Your task to perform on an android device: turn off notifications settings in the gmail app Image 0: 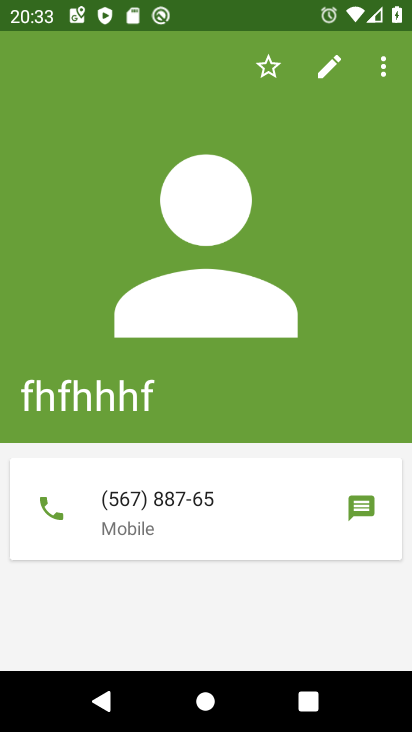
Step 0: press home button
Your task to perform on an android device: turn off notifications settings in the gmail app Image 1: 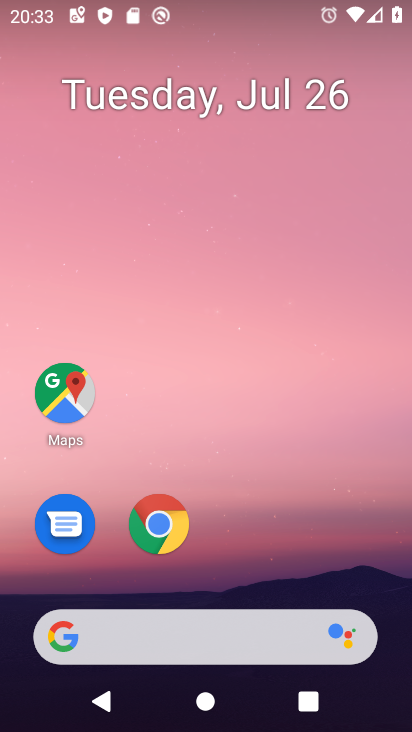
Step 1: drag from (256, 514) to (292, 1)
Your task to perform on an android device: turn off notifications settings in the gmail app Image 2: 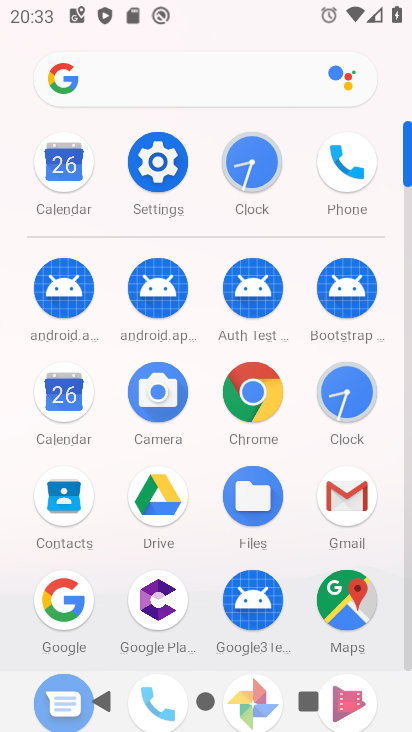
Step 2: click (353, 489)
Your task to perform on an android device: turn off notifications settings in the gmail app Image 3: 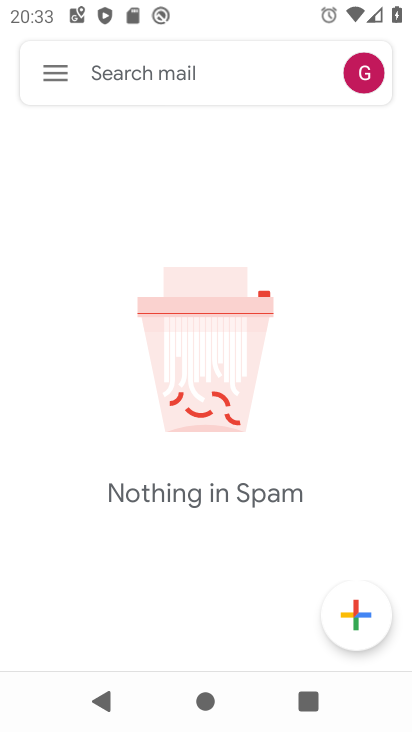
Step 3: click (50, 73)
Your task to perform on an android device: turn off notifications settings in the gmail app Image 4: 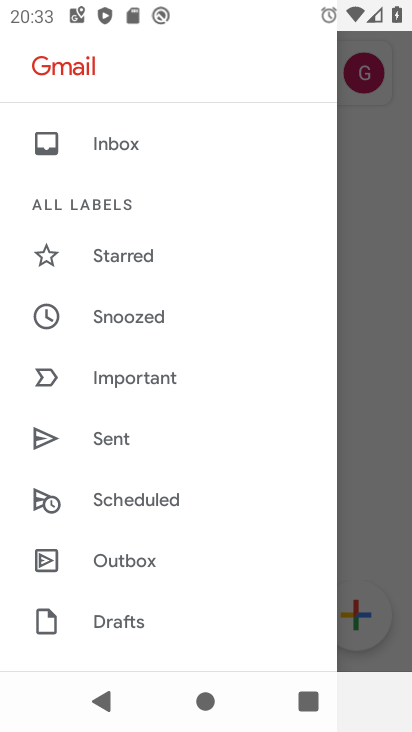
Step 4: drag from (165, 558) to (200, 22)
Your task to perform on an android device: turn off notifications settings in the gmail app Image 5: 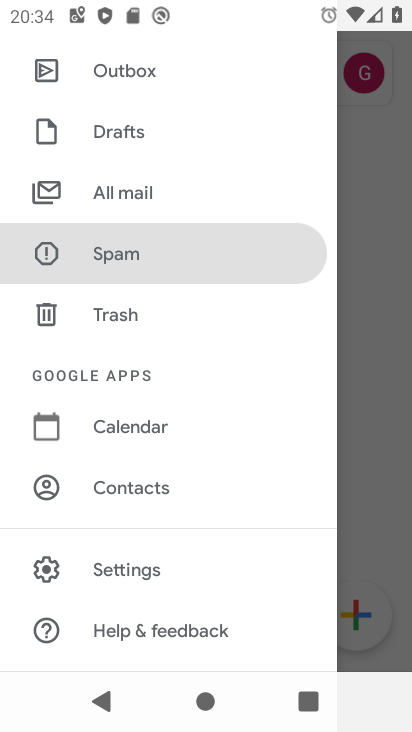
Step 5: click (134, 563)
Your task to perform on an android device: turn off notifications settings in the gmail app Image 6: 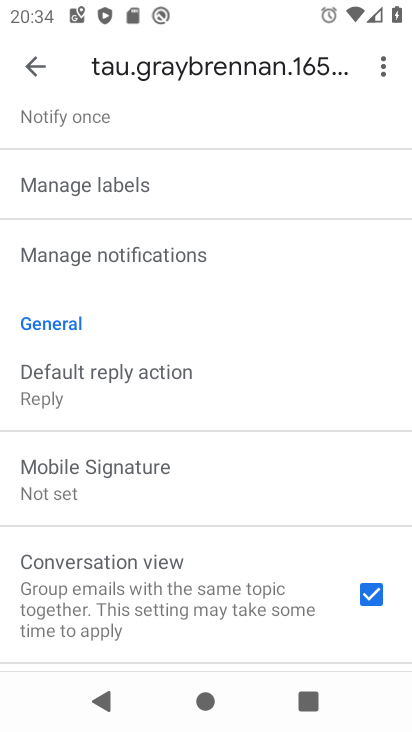
Step 6: click (134, 259)
Your task to perform on an android device: turn off notifications settings in the gmail app Image 7: 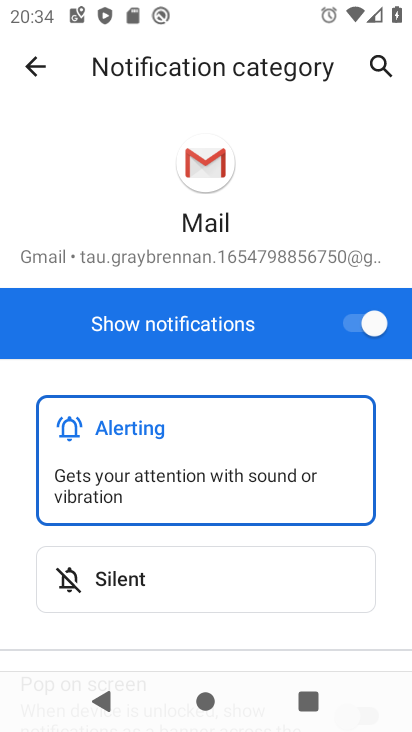
Step 7: click (352, 315)
Your task to perform on an android device: turn off notifications settings in the gmail app Image 8: 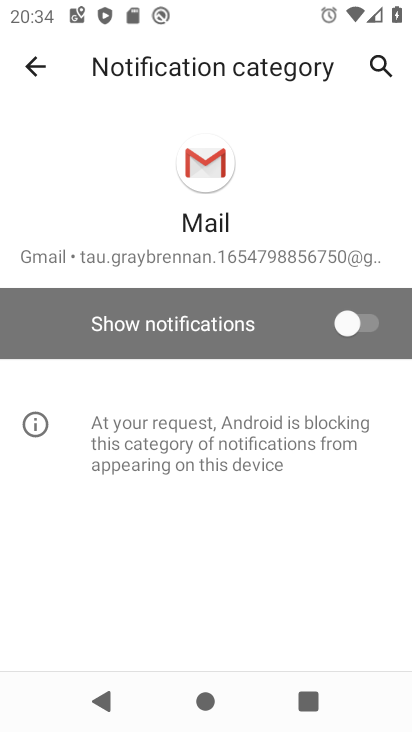
Step 8: task complete